Your task to perform on an android device: add a contact Image 0: 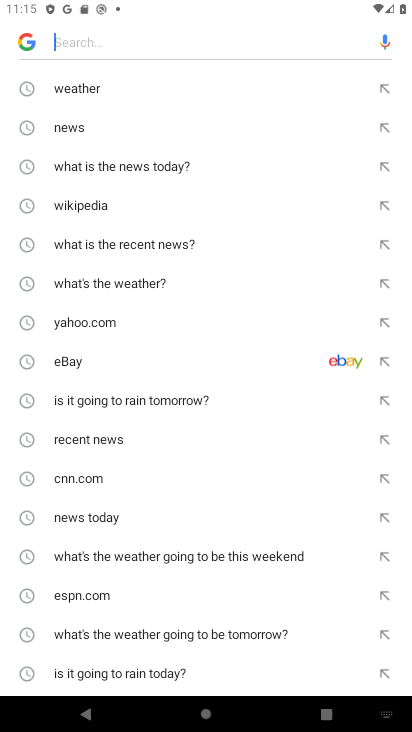
Step 0: press home button
Your task to perform on an android device: add a contact Image 1: 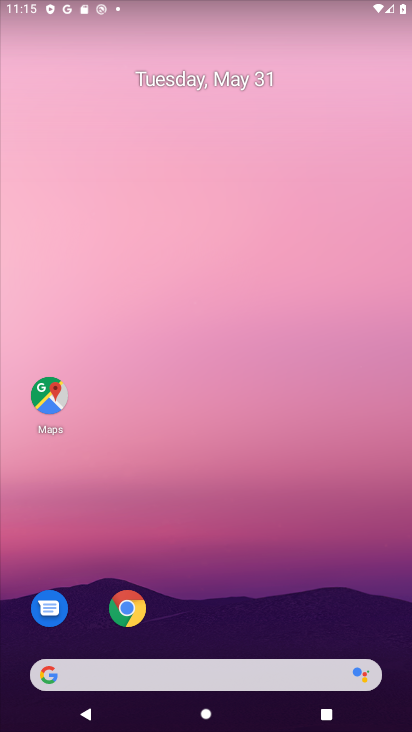
Step 1: drag from (232, 565) to (175, 7)
Your task to perform on an android device: add a contact Image 2: 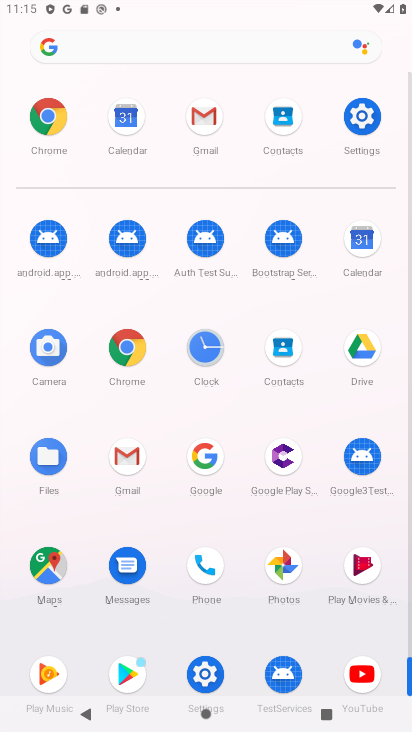
Step 2: click (288, 365)
Your task to perform on an android device: add a contact Image 3: 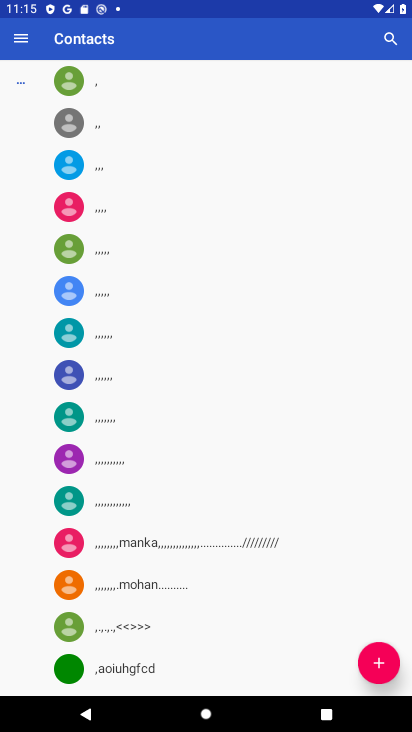
Step 3: click (379, 656)
Your task to perform on an android device: add a contact Image 4: 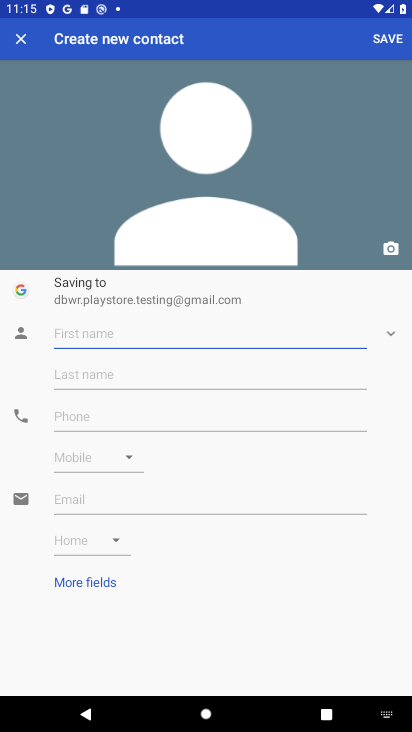
Step 4: type "/.,mnbhvgcfdxsw3r5t6y7u8io98765r"
Your task to perform on an android device: add a contact Image 5: 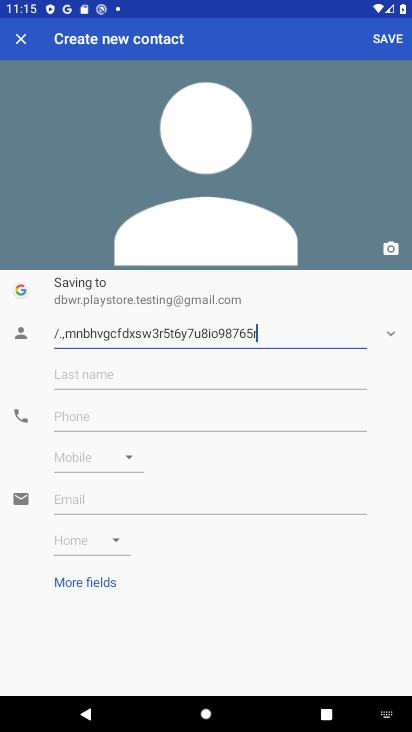
Step 5: click (169, 415)
Your task to perform on an android device: add a contact Image 6: 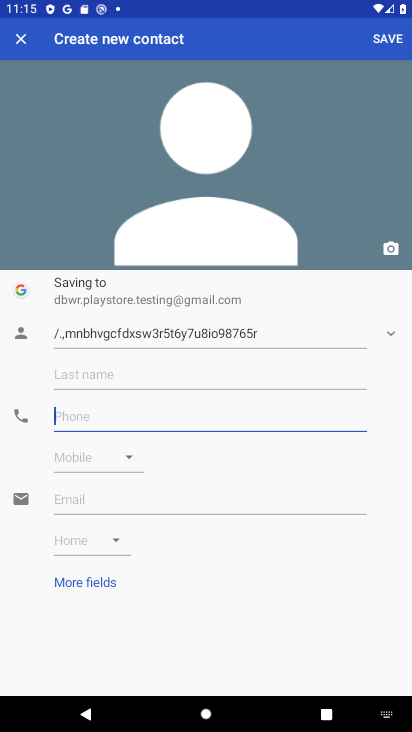
Step 6: type "87654"
Your task to perform on an android device: add a contact Image 7: 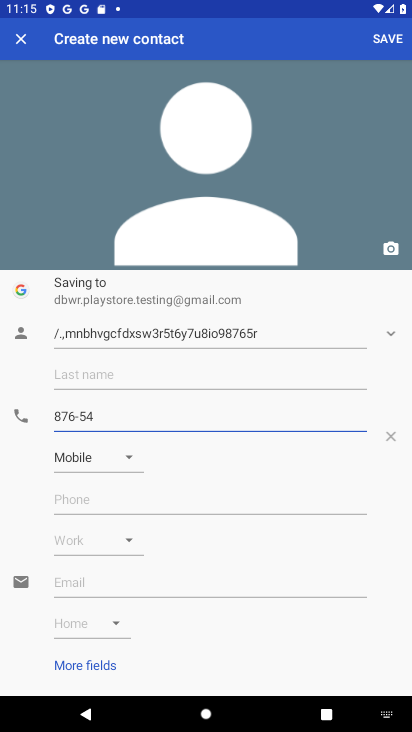
Step 7: click (387, 33)
Your task to perform on an android device: add a contact Image 8: 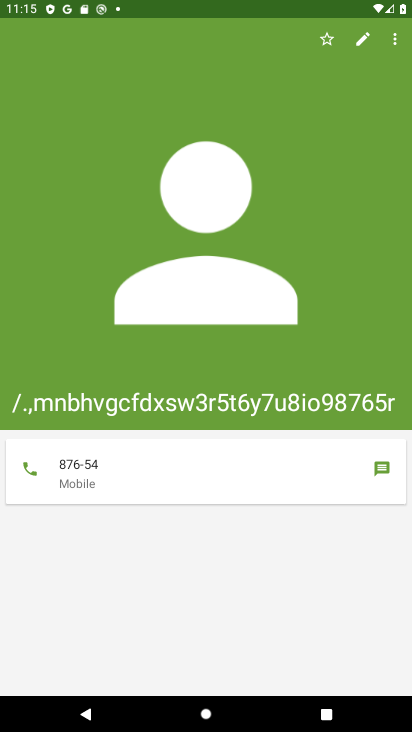
Step 8: task complete